Your task to perform on an android device: Is it going to rain this weekend? Image 0: 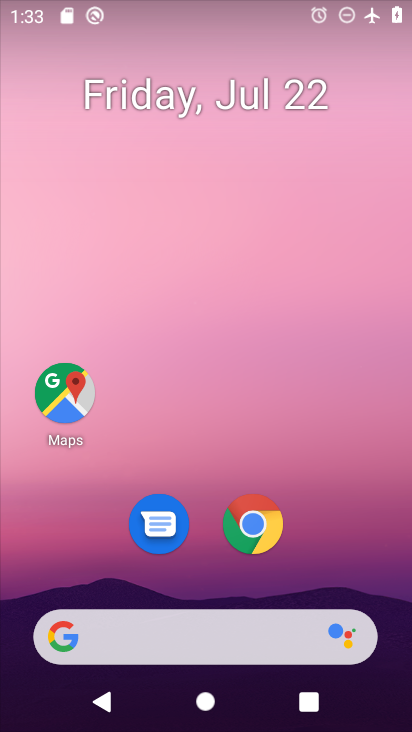
Step 0: drag from (322, 543) to (332, 453)
Your task to perform on an android device: Is it going to rain this weekend? Image 1: 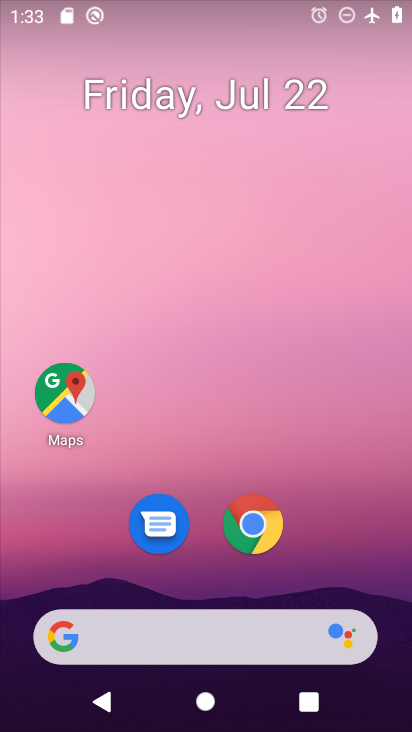
Step 1: click (220, 647)
Your task to perform on an android device: Is it going to rain this weekend? Image 2: 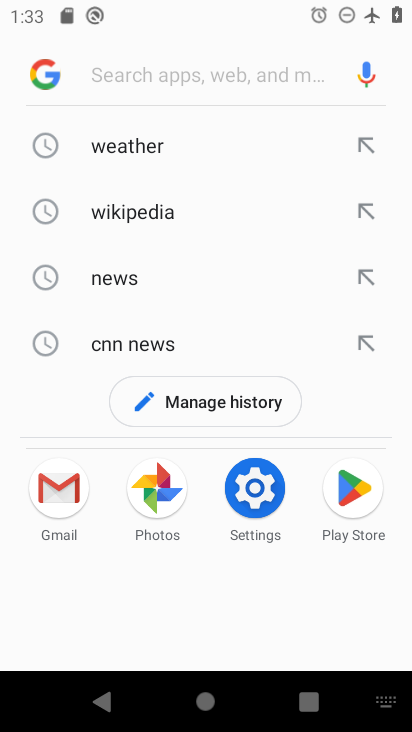
Step 2: click (145, 146)
Your task to perform on an android device: Is it going to rain this weekend? Image 3: 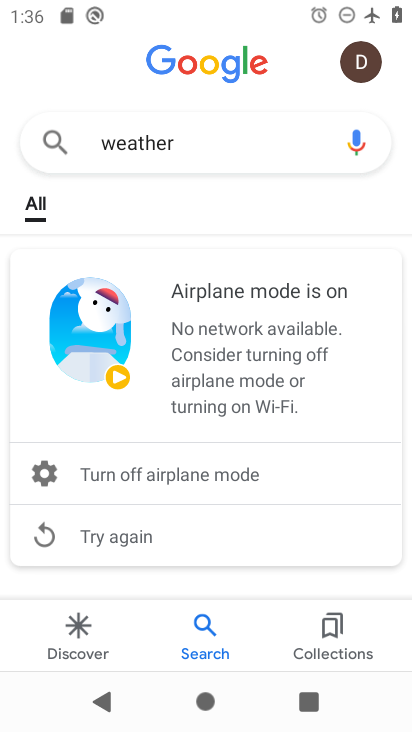
Step 3: task complete